Your task to perform on an android device: Go to eBay Image 0: 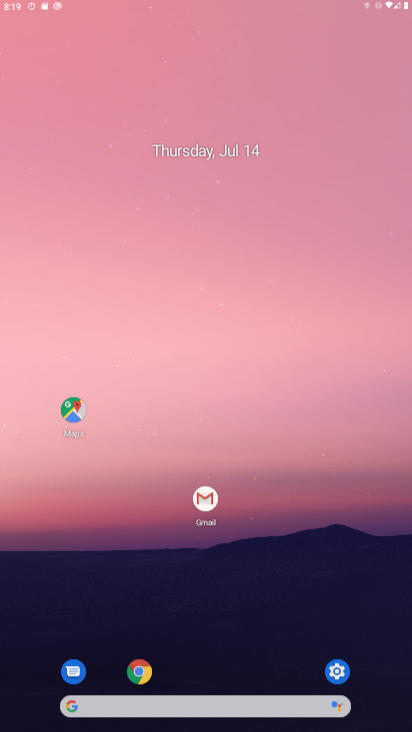
Step 0: press home button
Your task to perform on an android device: Go to eBay Image 1: 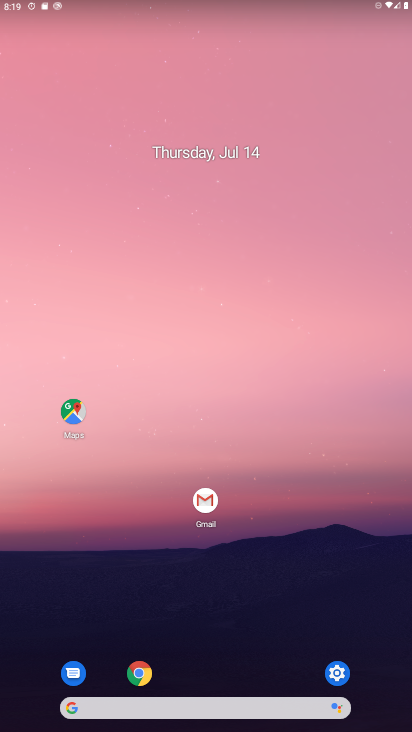
Step 1: click (143, 654)
Your task to perform on an android device: Go to eBay Image 2: 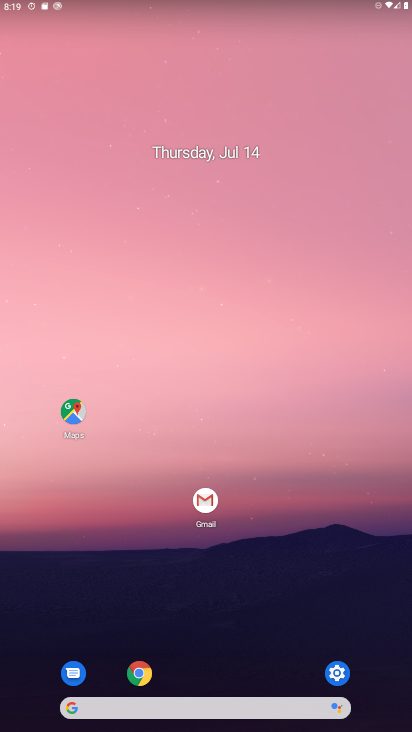
Step 2: click (144, 667)
Your task to perform on an android device: Go to eBay Image 3: 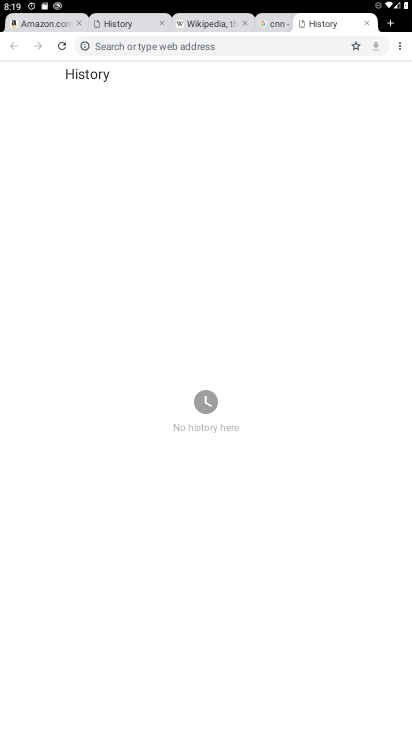
Step 3: click (389, 26)
Your task to perform on an android device: Go to eBay Image 4: 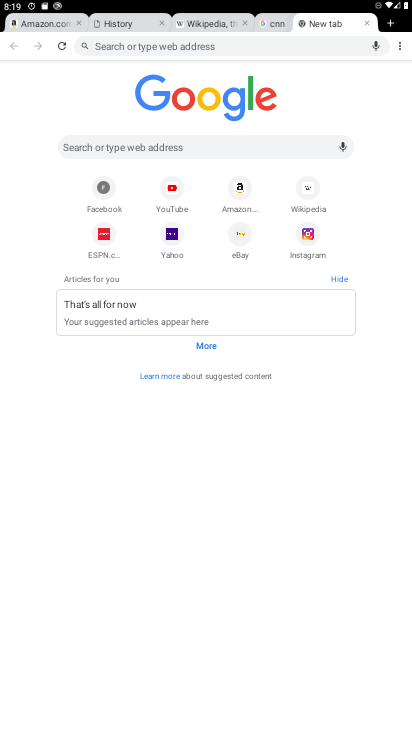
Step 4: click (243, 250)
Your task to perform on an android device: Go to eBay Image 5: 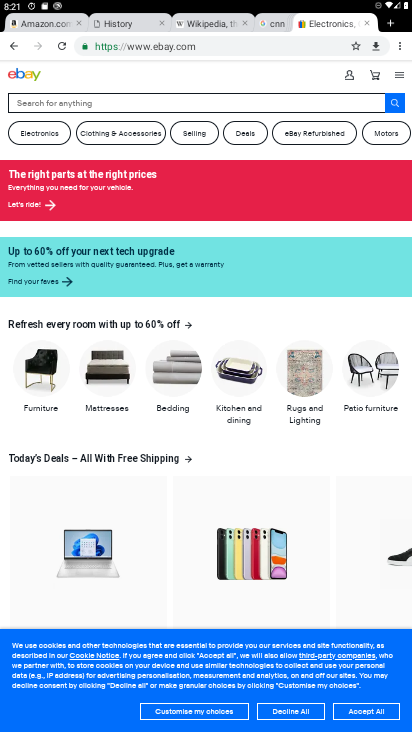
Step 5: task complete